Your task to perform on an android device: toggle sleep mode Image 0: 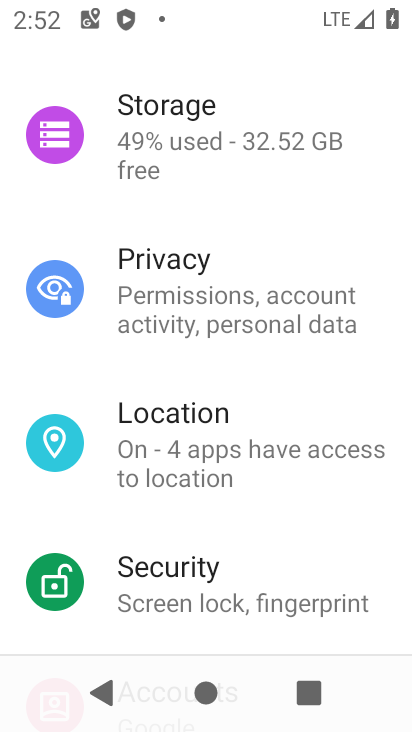
Step 0: drag from (340, 235) to (348, 676)
Your task to perform on an android device: toggle sleep mode Image 1: 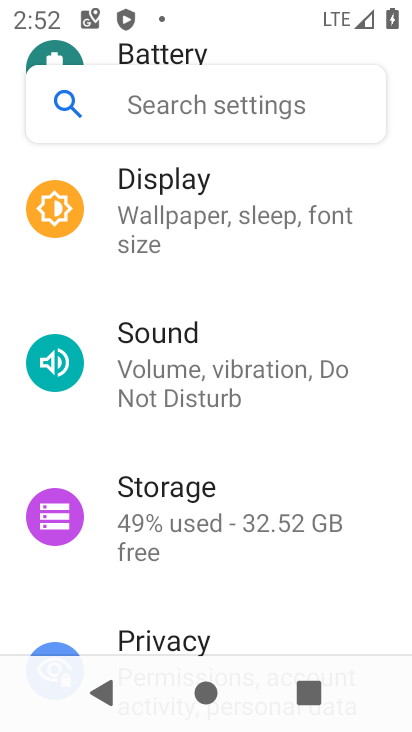
Step 1: click (276, 222)
Your task to perform on an android device: toggle sleep mode Image 2: 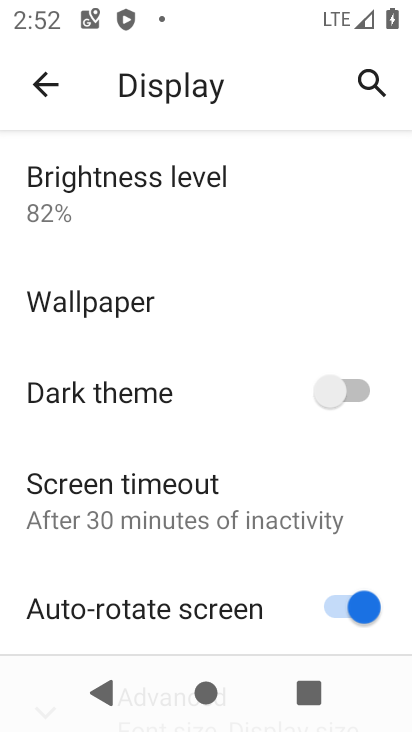
Step 2: task complete